Your task to perform on an android device: What's on my calendar tomorrow? Image 0: 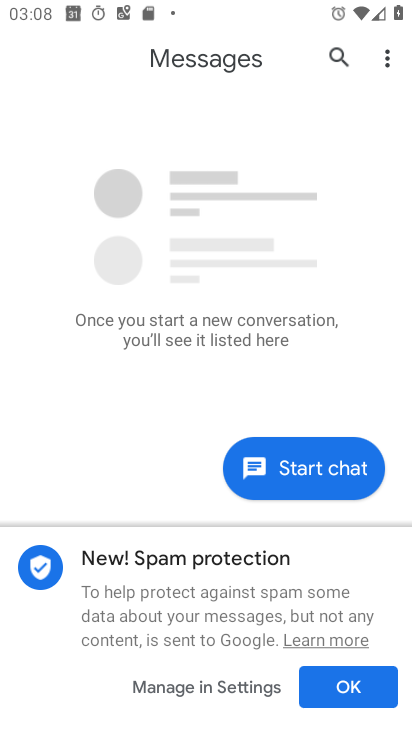
Step 0: press home button
Your task to perform on an android device: What's on my calendar tomorrow? Image 1: 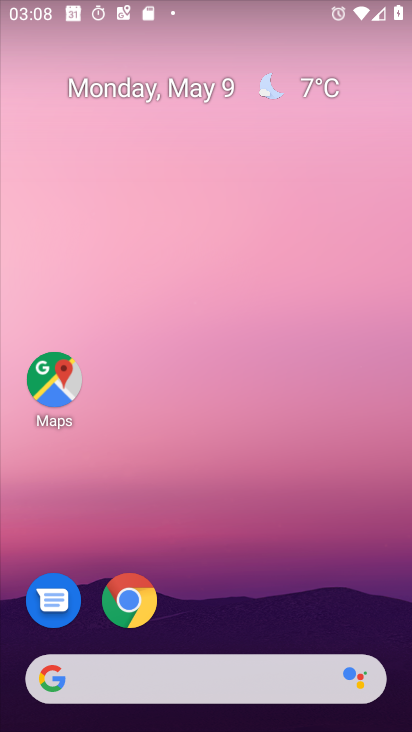
Step 1: drag from (211, 686) to (213, 110)
Your task to perform on an android device: What's on my calendar tomorrow? Image 2: 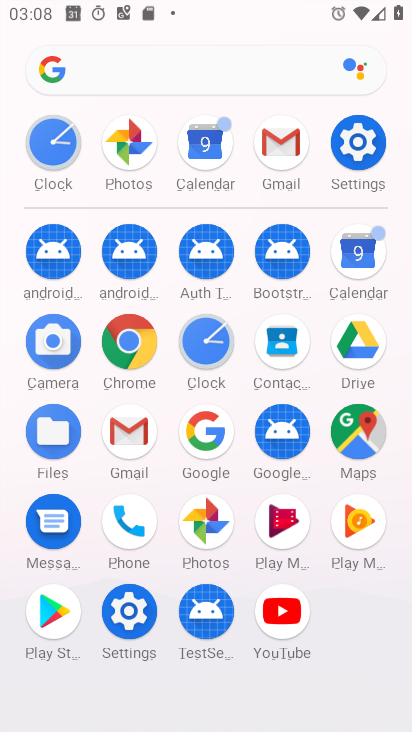
Step 2: click (361, 253)
Your task to perform on an android device: What's on my calendar tomorrow? Image 3: 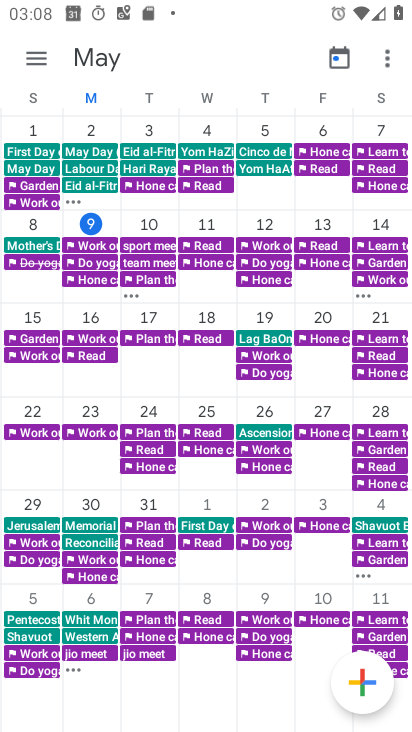
Step 3: click (36, 65)
Your task to perform on an android device: What's on my calendar tomorrow? Image 4: 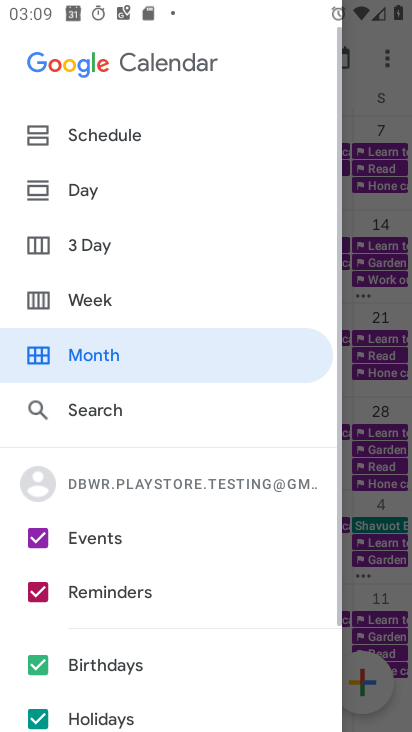
Step 4: click (112, 184)
Your task to perform on an android device: What's on my calendar tomorrow? Image 5: 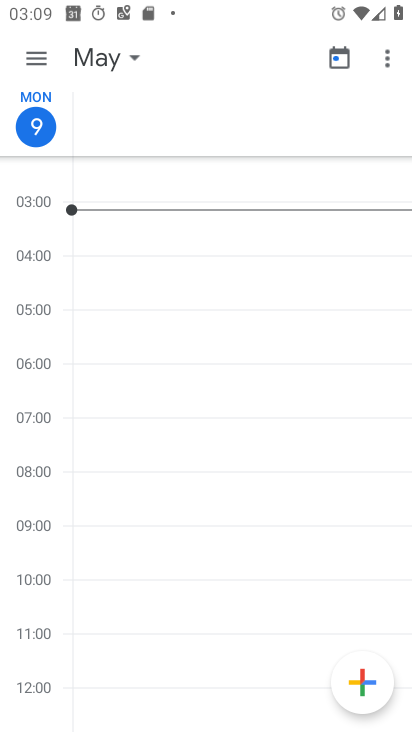
Step 5: task complete